Your task to perform on an android device: Go to sound settings Image 0: 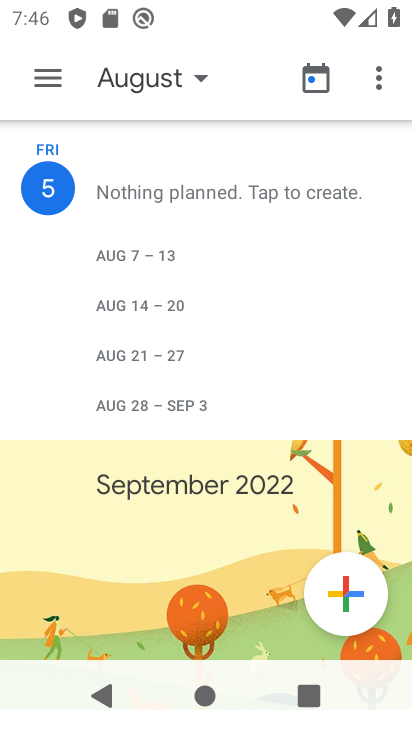
Step 0: press home button
Your task to perform on an android device: Go to sound settings Image 1: 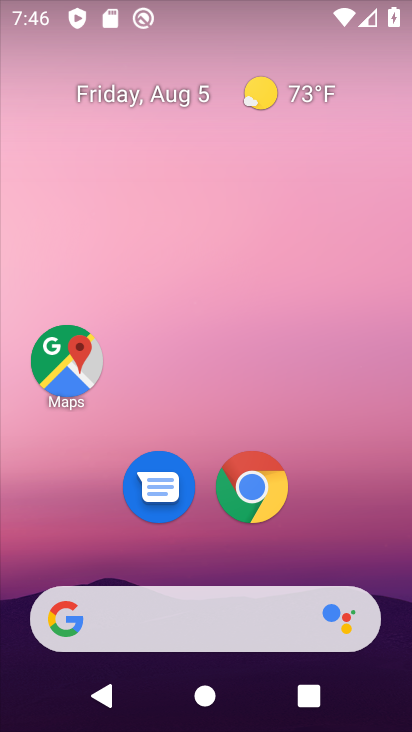
Step 1: drag from (204, 609) to (286, 114)
Your task to perform on an android device: Go to sound settings Image 2: 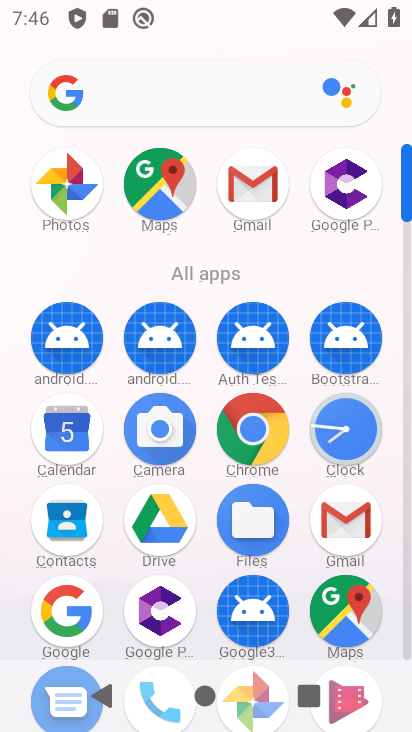
Step 2: drag from (219, 605) to (287, 164)
Your task to perform on an android device: Go to sound settings Image 3: 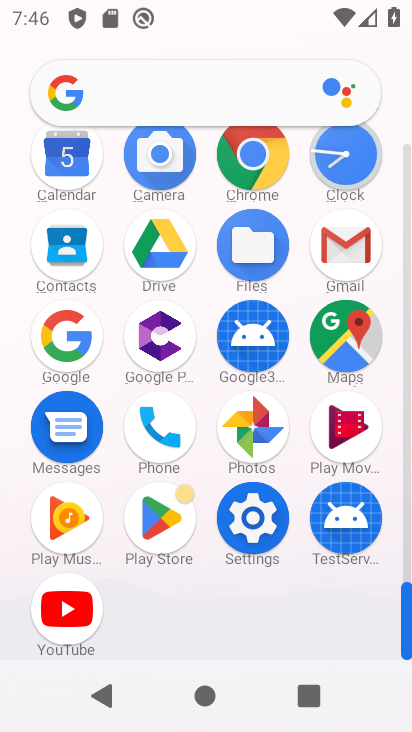
Step 3: click (262, 520)
Your task to perform on an android device: Go to sound settings Image 4: 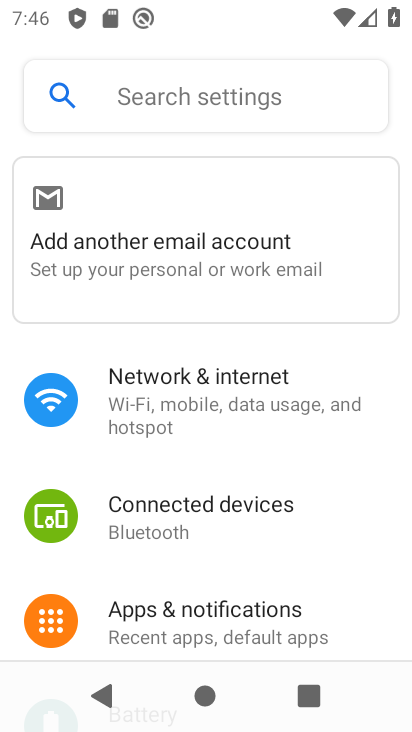
Step 4: drag from (276, 427) to (305, 91)
Your task to perform on an android device: Go to sound settings Image 5: 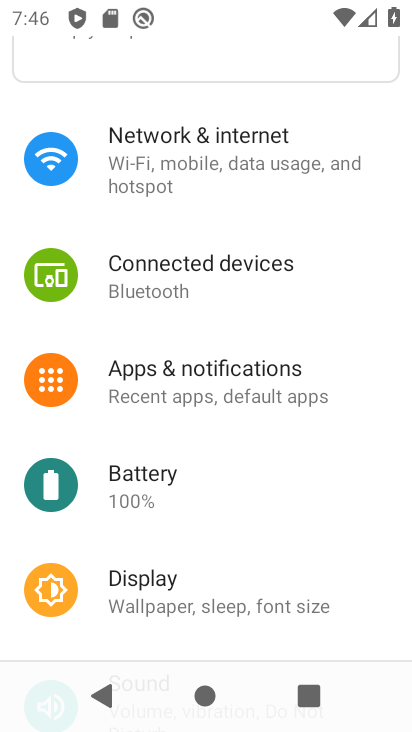
Step 5: drag from (256, 409) to (310, 93)
Your task to perform on an android device: Go to sound settings Image 6: 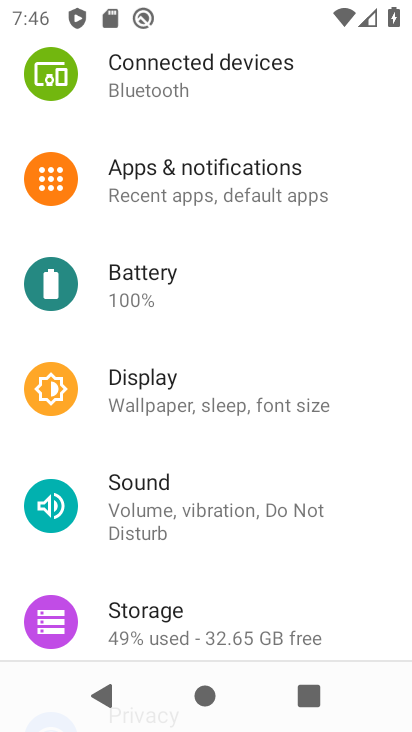
Step 6: click (142, 480)
Your task to perform on an android device: Go to sound settings Image 7: 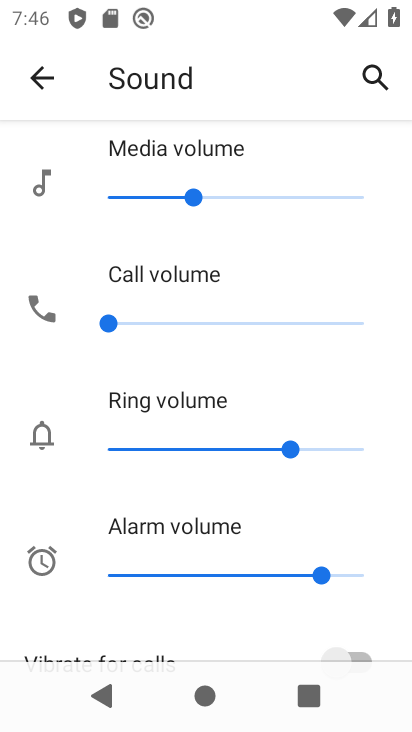
Step 7: task complete